Your task to perform on an android device: Open Google Maps and go to "Timeline" Image 0: 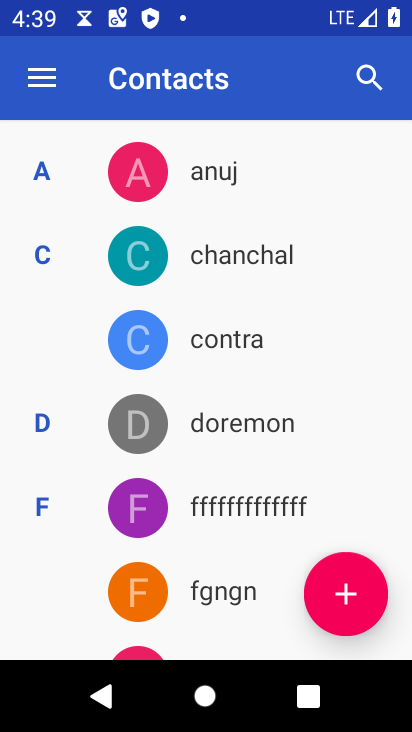
Step 0: press back button
Your task to perform on an android device: Open Google Maps and go to "Timeline" Image 1: 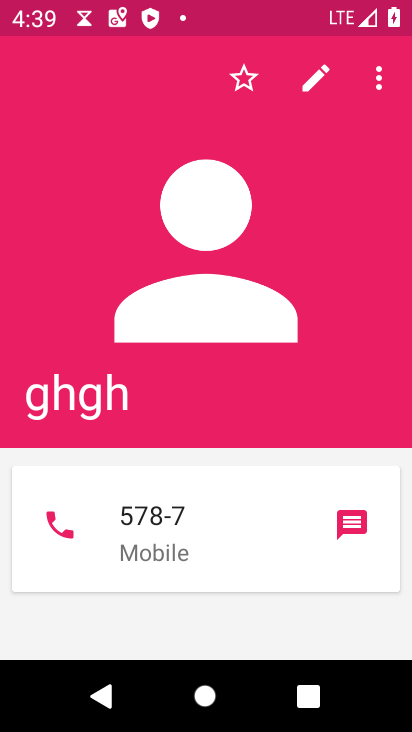
Step 1: press back button
Your task to perform on an android device: Open Google Maps and go to "Timeline" Image 2: 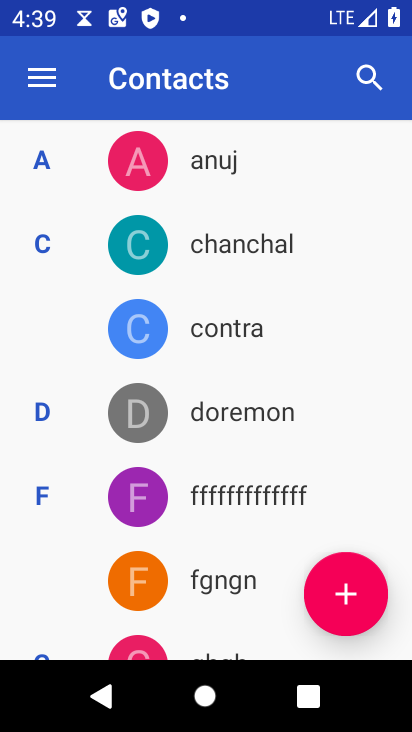
Step 2: press back button
Your task to perform on an android device: Open Google Maps and go to "Timeline" Image 3: 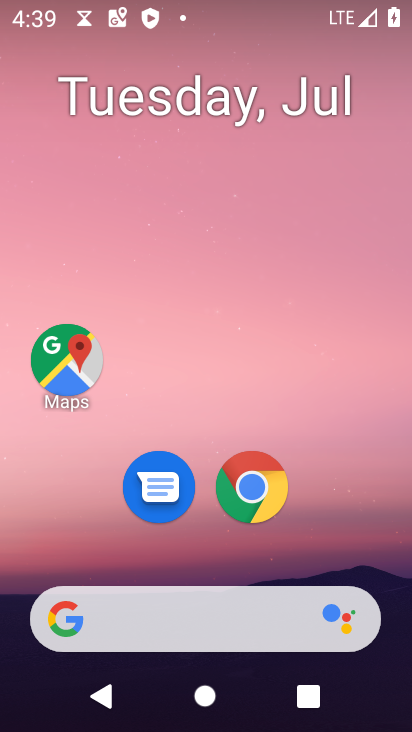
Step 3: click (67, 364)
Your task to perform on an android device: Open Google Maps and go to "Timeline" Image 4: 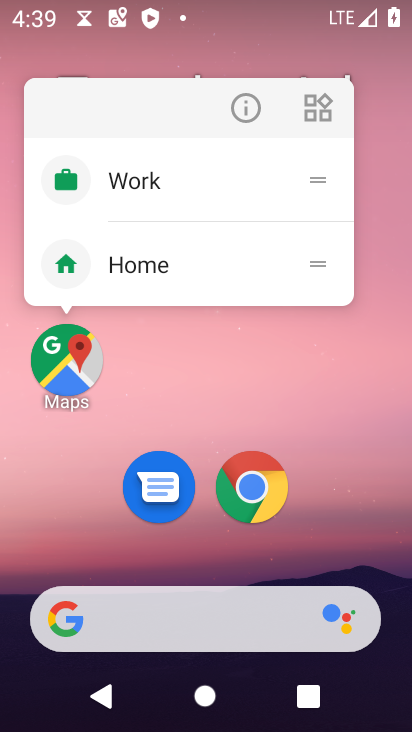
Step 4: click (67, 364)
Your task to perform on an android device: Open Google Maps and go to "Timeline" Image 5: 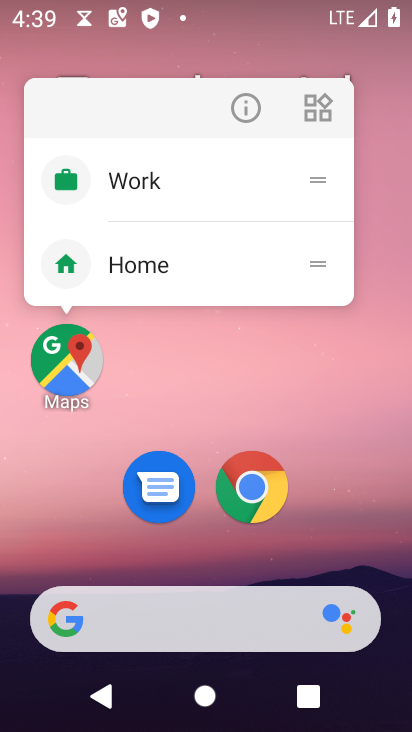
Step 5: click (65, 356)
Your task to perform on an android device: Open Google Maps and go to "Timeline" Image 6: 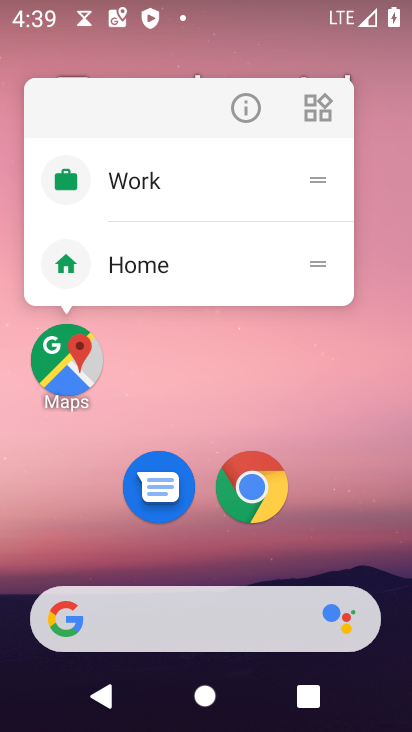
Step 6: click (65, 358)
Your task to perform on an android device: Open Google Maps and go to "Timeline" Image 7: 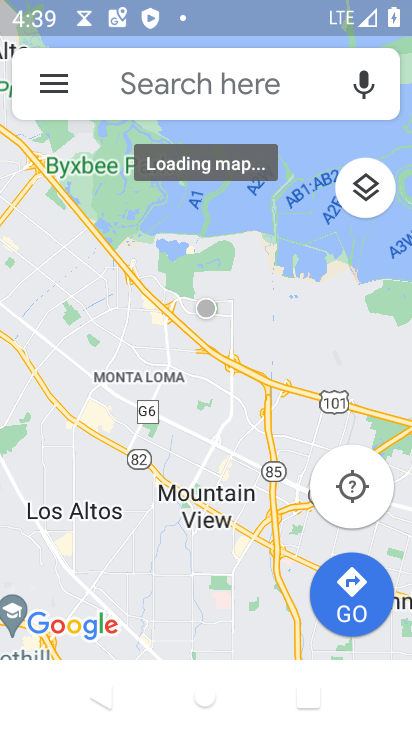
Step 7: click (53, 84)
Your task to perform on an android device: Open Google Maps and go to "Timeline" Image 8: 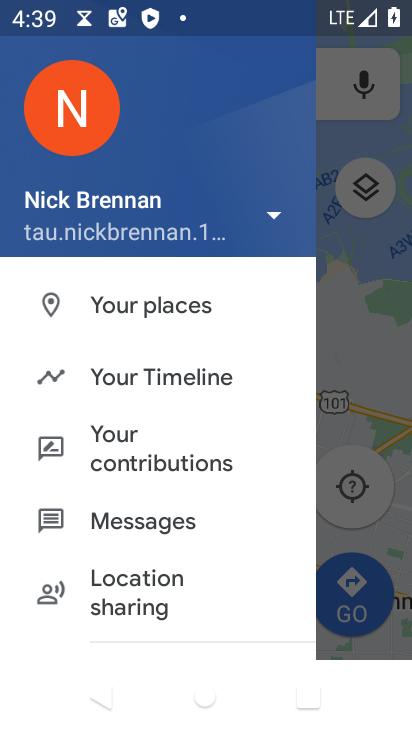
Step 8: click (177, 377)
Your task to perform on an android device: Open Google Maps and go to "Timeline" Image 9: 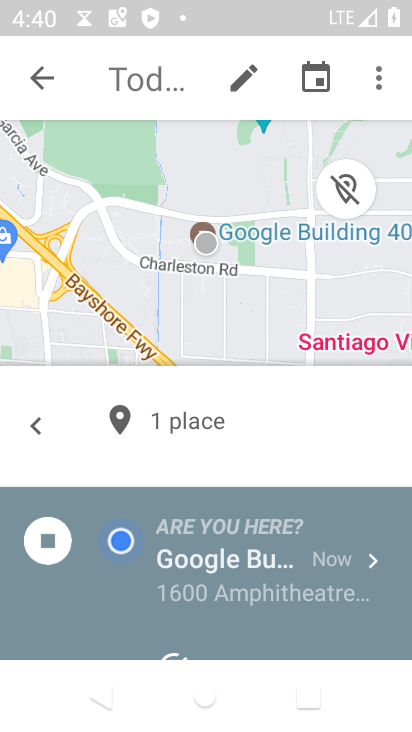
Step 9: task complete